Your task to perform on an android device: Open settings on Google Maps Image 0: 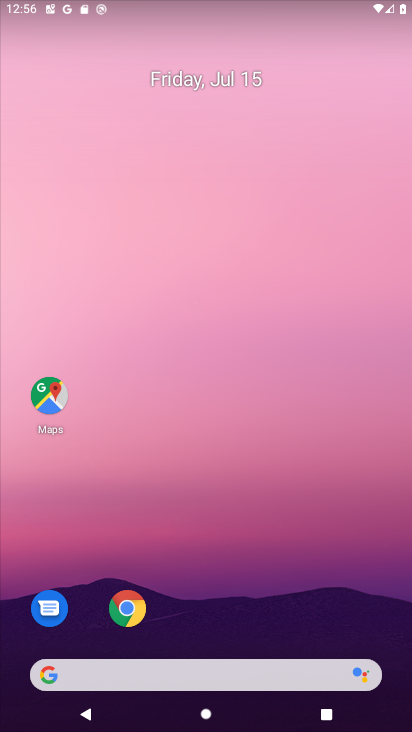
Step 0: click (233, 569)
Your task to perform on an android device: Open settings on Google Maps Image 1: 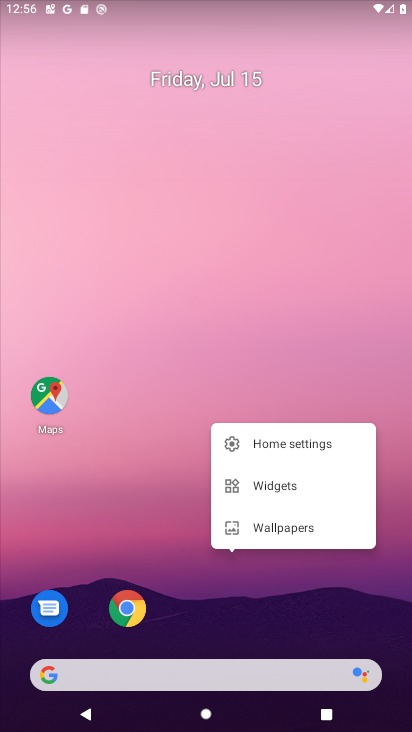
Step 1: click (48, 399)
Your task to perform on an android device: Open settings on Google Maps Image 2: 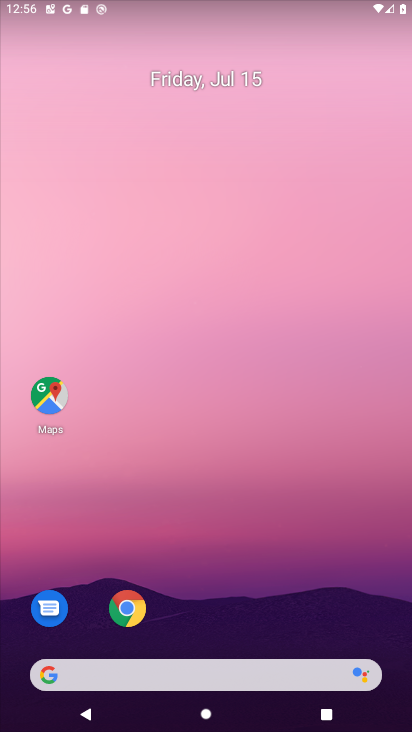
Step 2: click (45, 389)
Your task to perform on an android device: Open settings on Google Maps Image 3: 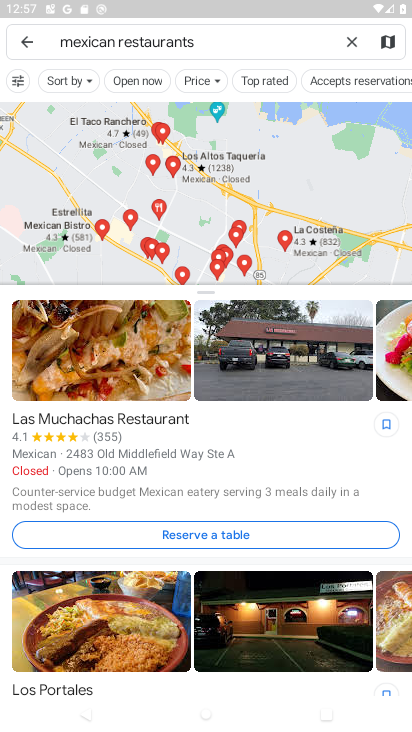
Step 3: click (14, 38)
Your task to perform on an android device: Open settings on Google Maps Image 4: 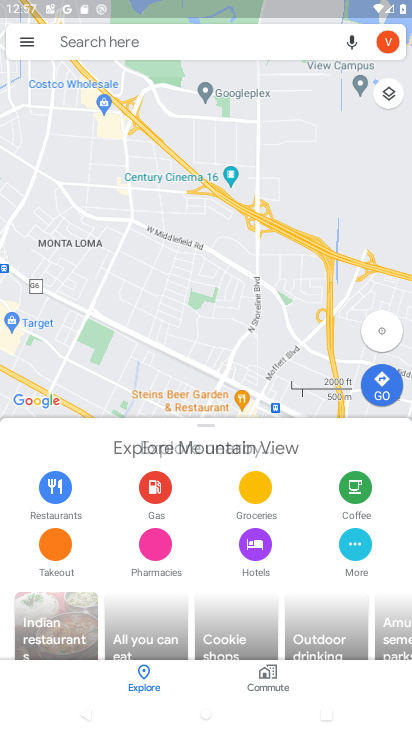
Step 4: click (23, 38)
Your task to perform on an android device: Open settings on Google Maps Image 5: 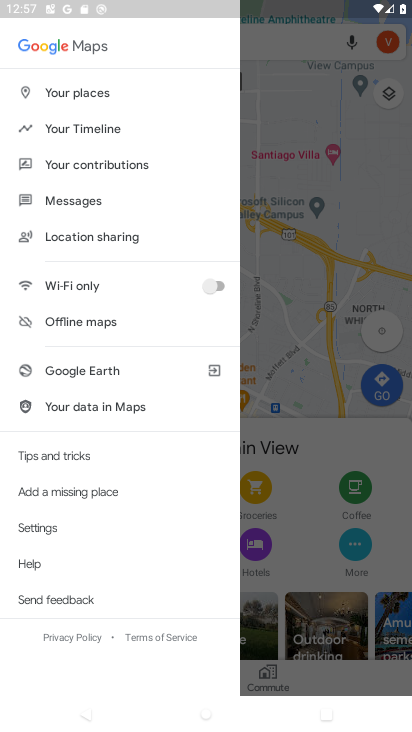
Step 5: click (24, 45)
Your task to perform on an android device: Open settings on Google Maps Image 6: 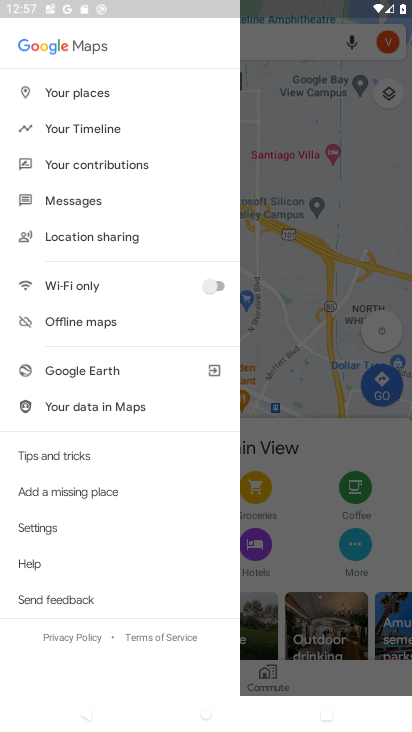
Step 6: click (37, 531)
Your task to perform on an android device: Open settings on Google Maps Image 7: 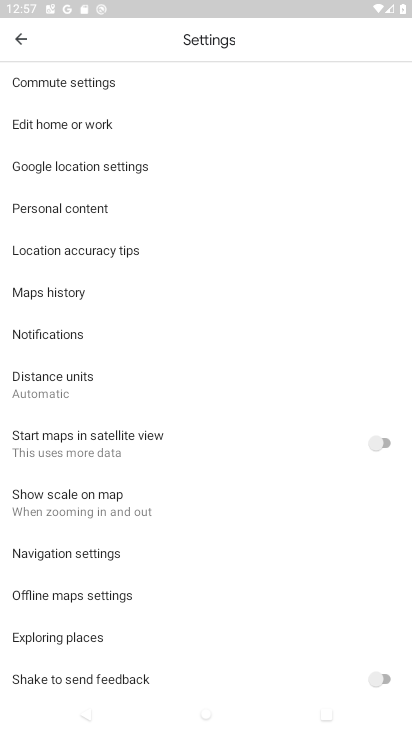
Step 7: task complete